Your task to perform on an android device: check google app version Image 0: 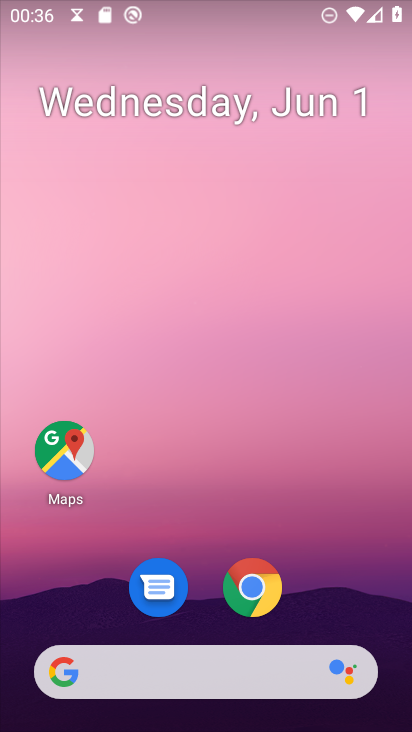
Step 0: drag from (305, 612) to (345, 7)
Your task to perform on an android device: check google app version Image 1: 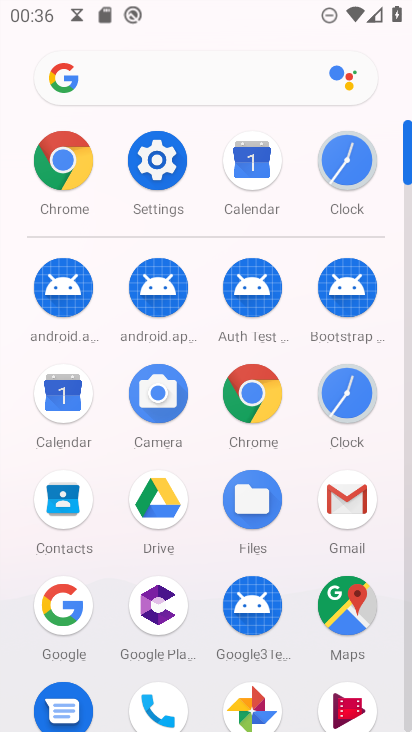
Step 1: click (57, 608)
Your task to perform on an android device: check google app version Image 2: 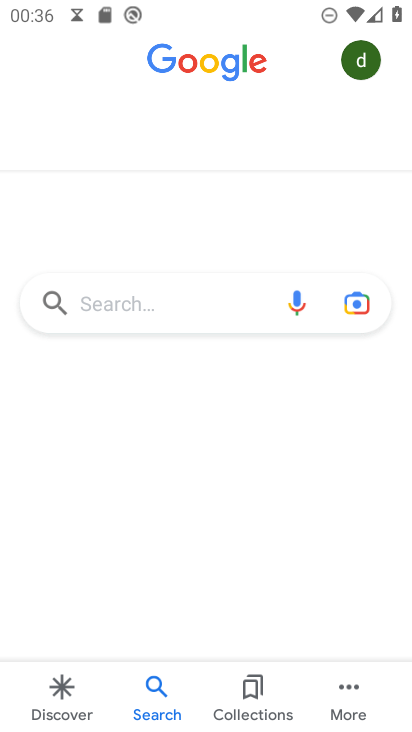
Step 2: click (333, 688)
Your task to perform on an android device: check google app version Image 3: 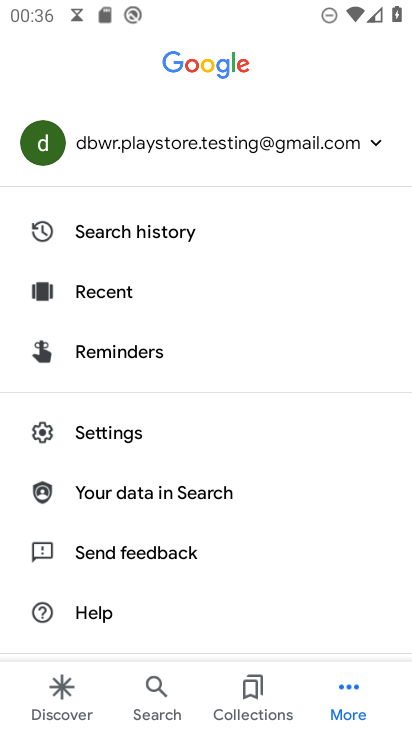
Step 3: click (137, 444)
Your task to perform on an android device: check google app version Image 4: 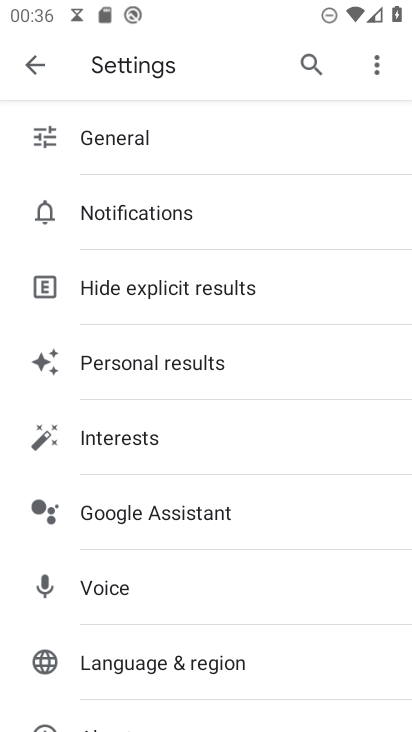
Step 4: drag from (186, 662) to (194, 177)
Your task to perform on an android device: check google app version Image 5: 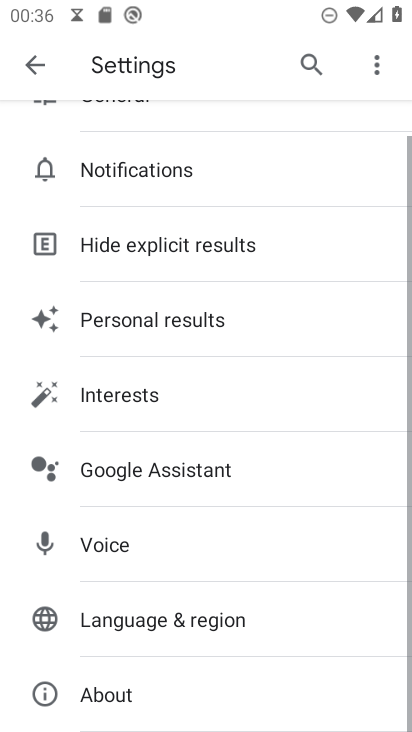
Step 5: click (98, 698)
Your task to perform on an android device: check google app version Image 6: 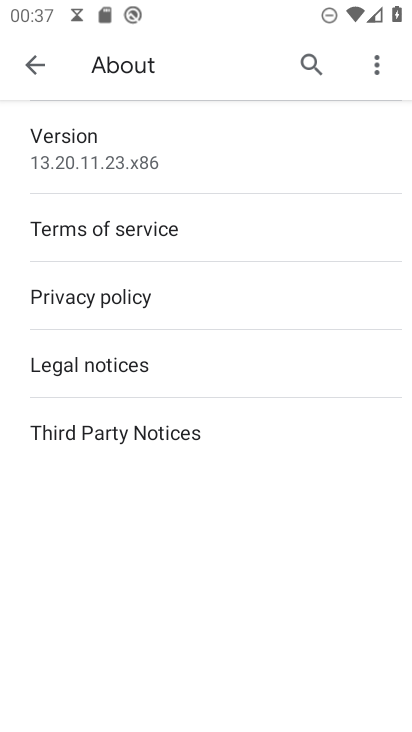
Step 6: click (130, 137)
Your task to perform on an android device: check google app version Image 7: 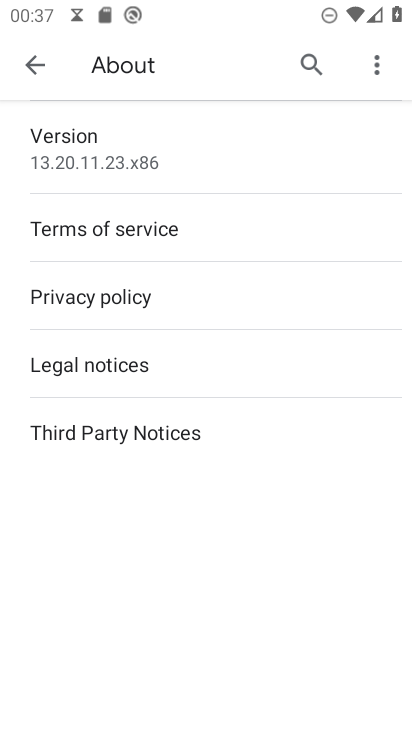
Step 7: task complete